Your task to perform on an android device: turn off wifi Image 0: 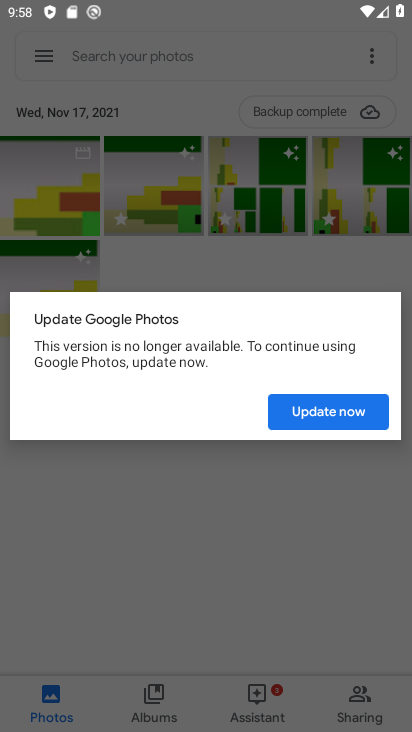
Step 0: press home button
Your task to perform on an android device: turn off wifi Image 1: 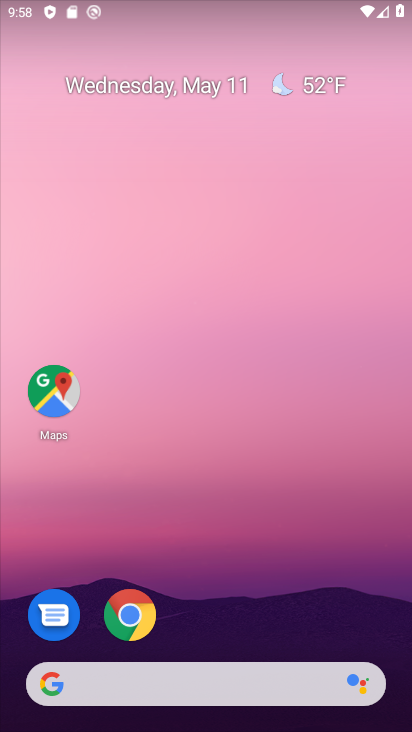
Step 1: drag from (245, 546) to (223, 98)
Your task to perform on an android device: turn off wifi Image 2: 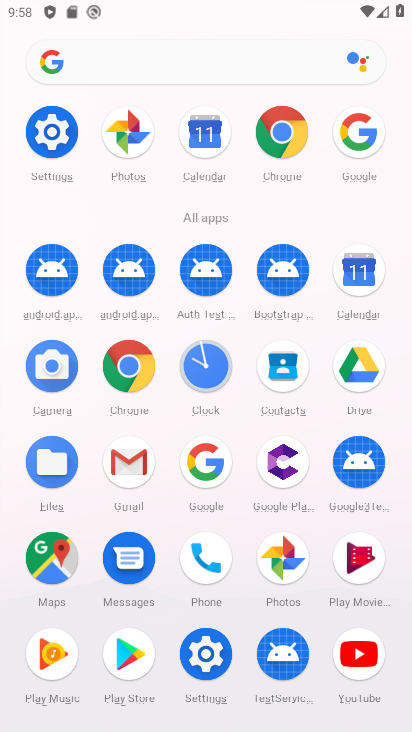
Step 2: click (50, 130)
Your task to perform on an android device: turn off wifi Image 3: 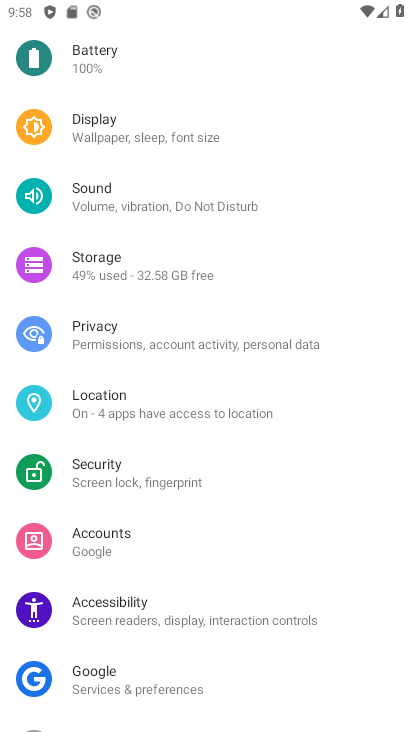
Step 3: drag from (199, 155) to (160, 264)
Your task to perform on an android device: turn off wifi Image 4: 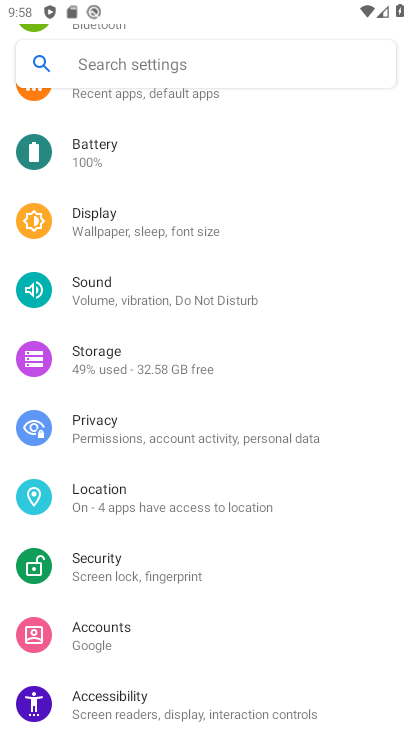
Step 4: drag from (157, 158) to (167, 267)
Your task to perform on an android device: turn off wifi Image 5: 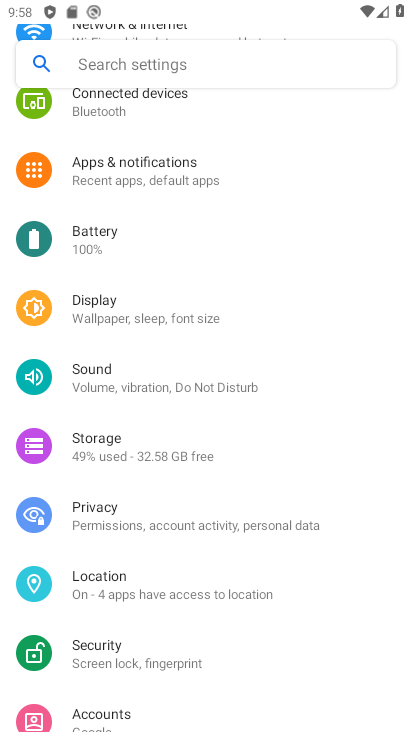
Step 5: drag from (170, 134) to (204, 281)
Your task to perform on an android device: turn off wifi Image 6: 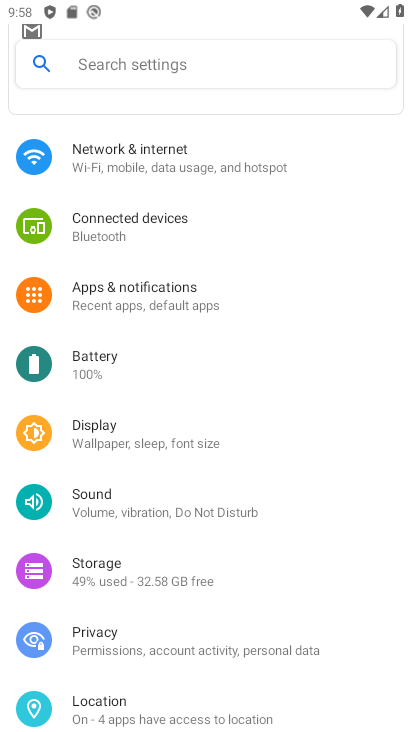
Step 6: click (175, 167)
Your task to perform on an android device: turn off wifi Image 7: 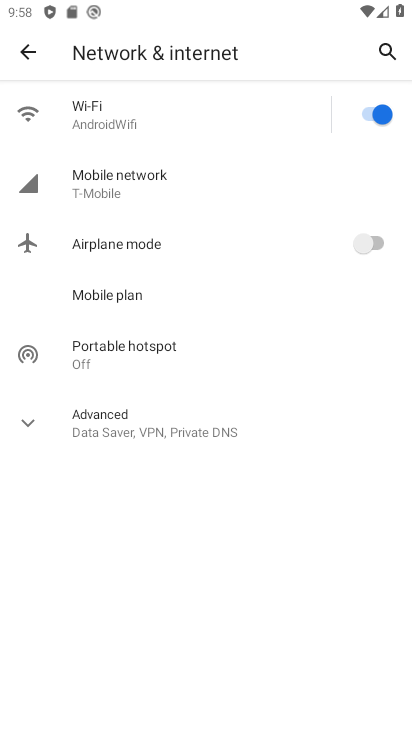
Step 7: click (374, 116)
Your task to perform on an android device: turn off wifi Image 8: 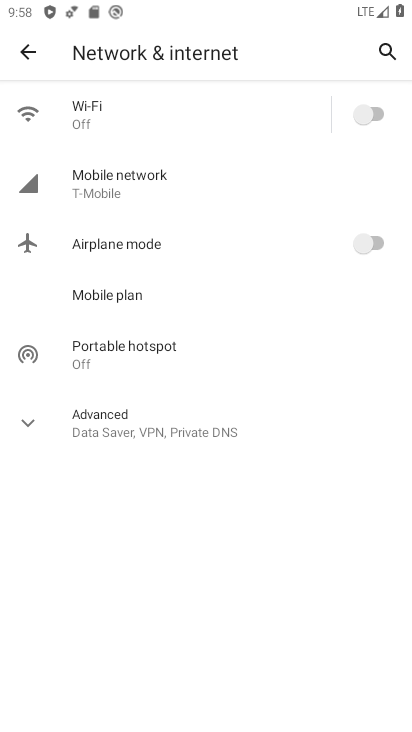
Step 8: task complete